Your task to perform on an android device: find snoozed emails in the gmail app Image 0: 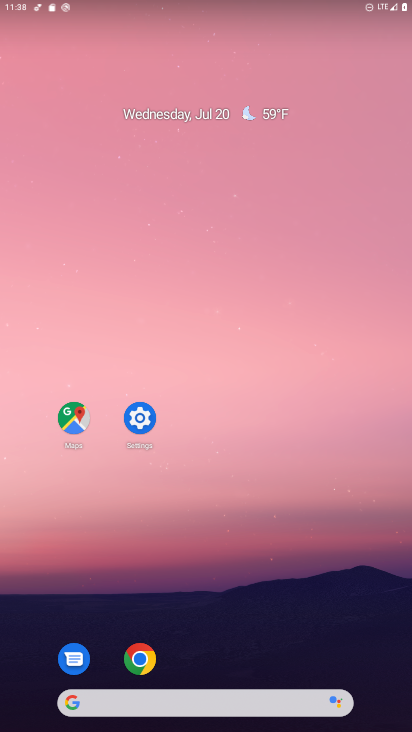
Step 0: drag from (392, 711) to (344, 69)
Your task to perform on an android device: find snoozed emails in the gmail app Image 1: 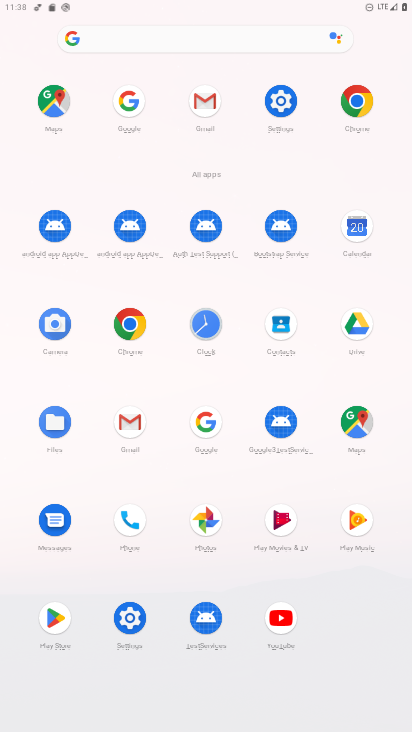
Step 1: click (113, 419)
Your task to perform on an android device: find snoozed emails in the gmail app Image 2: 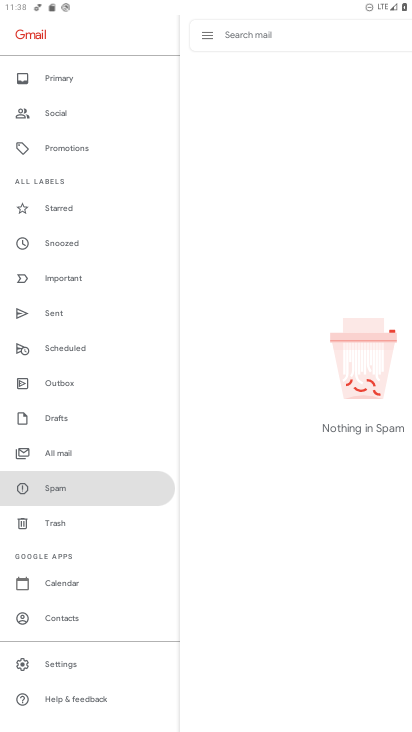
Step 2: click (61, 242)
Your task to perform on an android device: find snoozed emails in the gmail app Image 3: 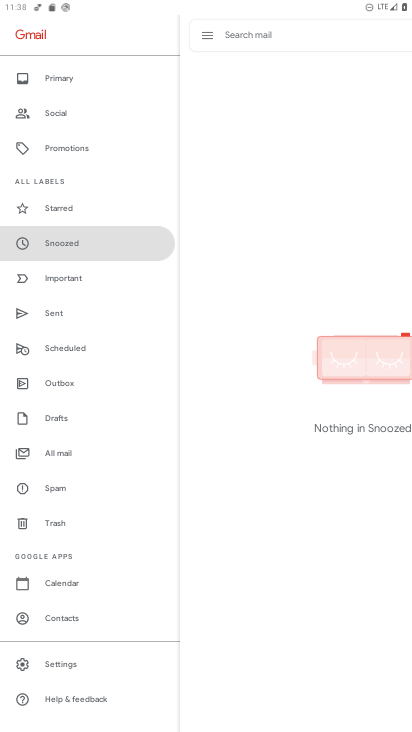
Step 3: task complete